Your task to perform on an android device: What's a good restaurant in San Francisco? Image 0: 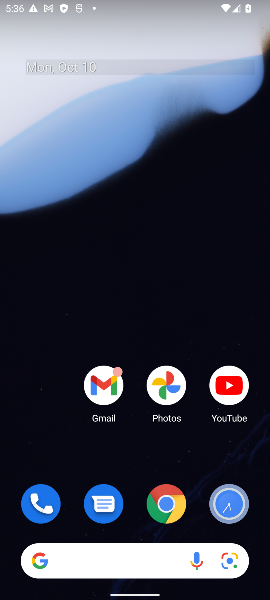
Step 0: drag from (120, 485) to (141, 20)
Your task to perform on an android device: What's a good restaurant in San Francisco? Image 1: 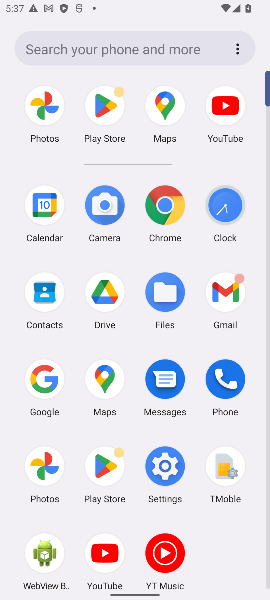
Step 1: click (162, 220)
Your task to perform on an android device: What's a good restaurant in San Francisco? Image 2: 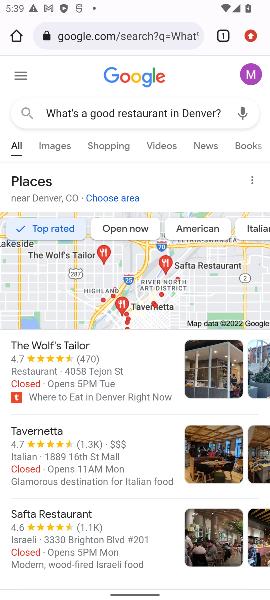
Step 2: click (191, 113)
Your task to perform on an android device: What's a good restaurant in San Francisco? Image 3: 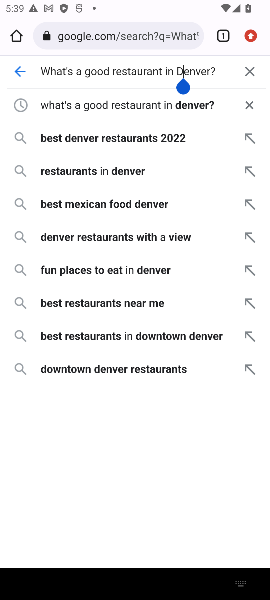
Step 3: click (165, 23)
Your task to perform on an android device: What's a good restaurant in San Francisco? Image 4: 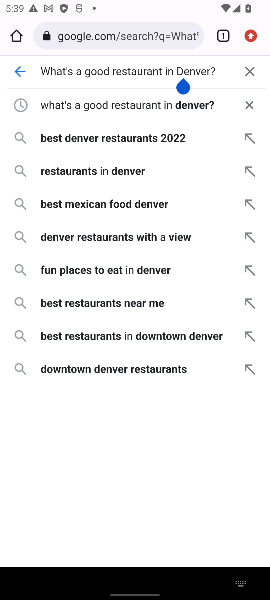
Step 4: click (165, 35)
Your task to perform on an android device: What's a good restaurant in San Francisco? Image 5: 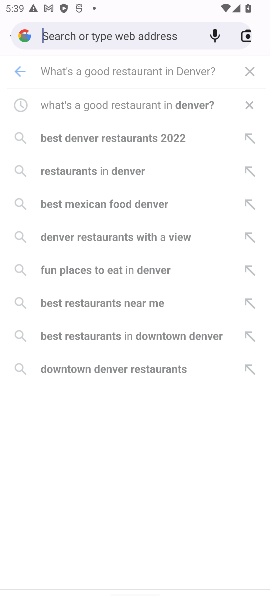
Step 5: click (198, 42)
Your task to perform on an android device: What's a good restaurant in San Francisco? Image 6: 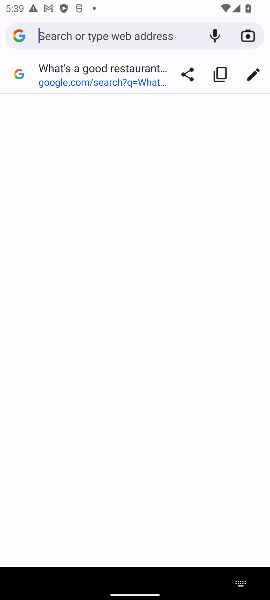
Step 6: click (249, 407)
Your task to perform on an android device: What's a good restaurant in San Francisco? Image 7: 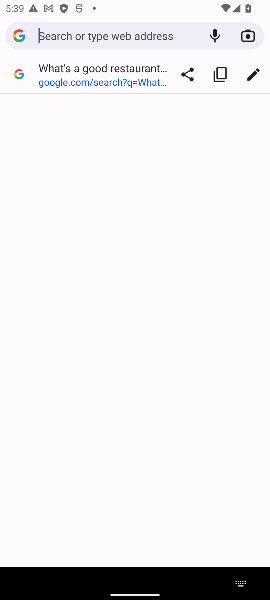
Step 7: type "What's a good restaurant in San Francisco?"
Your task to perform on an android device: What's a good restaurant in San Francisco? Image 8: 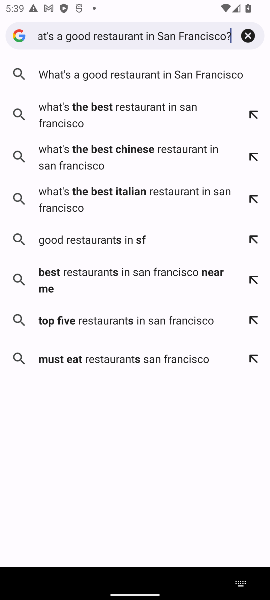
Step 8: press enter
Your task to perform on an android device: What's a good restaurant in San Francisco? Image 9: 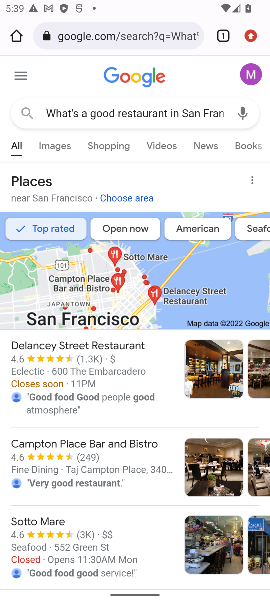
Step 9: task complete